Your task to perform on an android device: turn off location history Image 0: 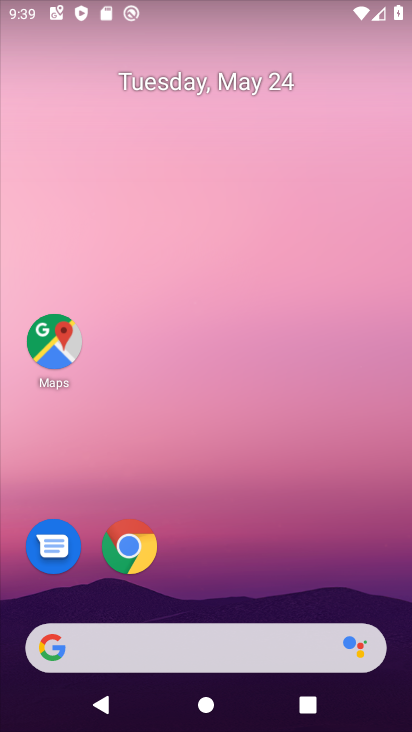
Step 0: drag from (191, 624) to (274, 183)
Your task to perform on an android device: turn off location history Image 1: 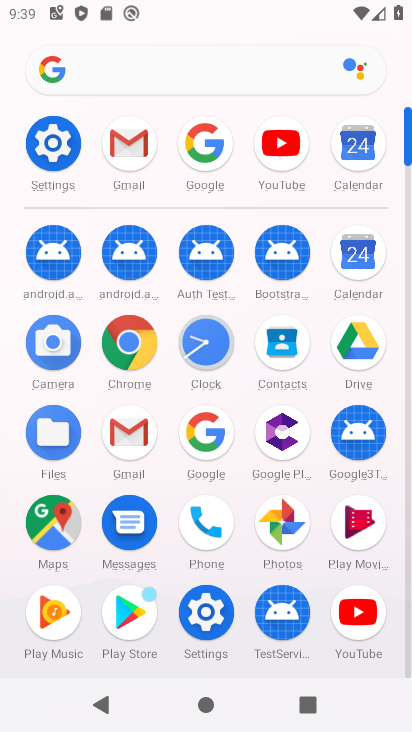
Step 1: click (64, 145)
Your task to perform on an android device: turn off location history Image 2: 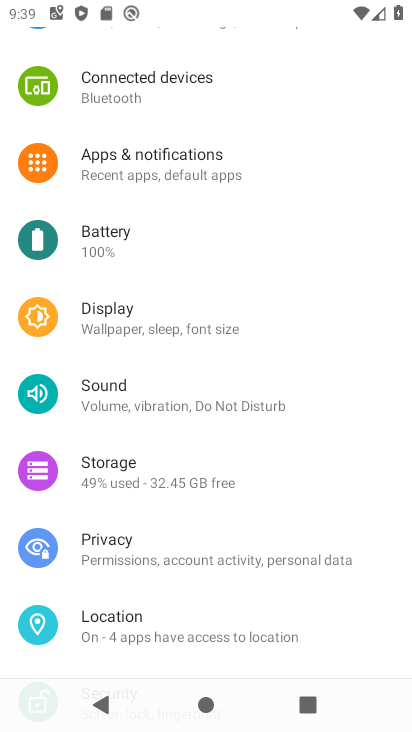
Step 2: click (159, 626)
Your task to perform on an android device: turn off location history Image 3: 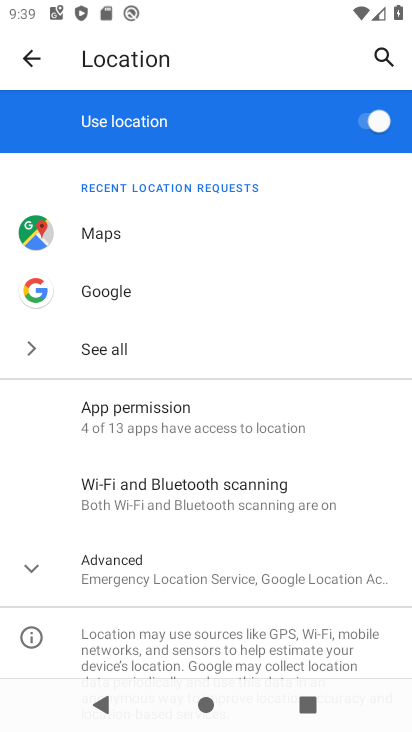
Step 3: click (103, 561)
Your task to perform on an android device: turn off location history Image 4: 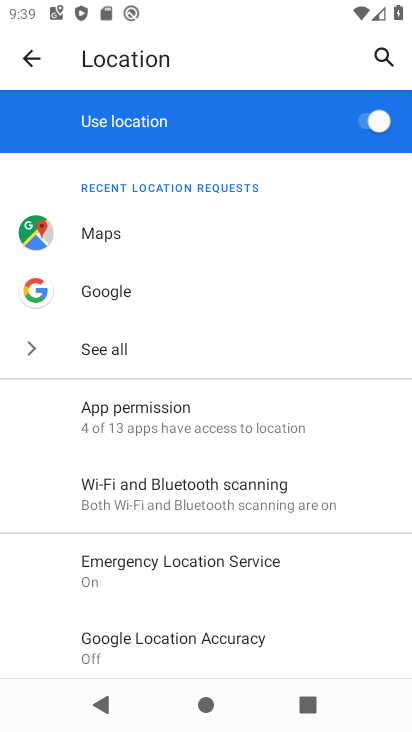
Step 4: drag from (167, 644) to (214, 350)
Your task to perform on an android device: turn off location history Image 5: 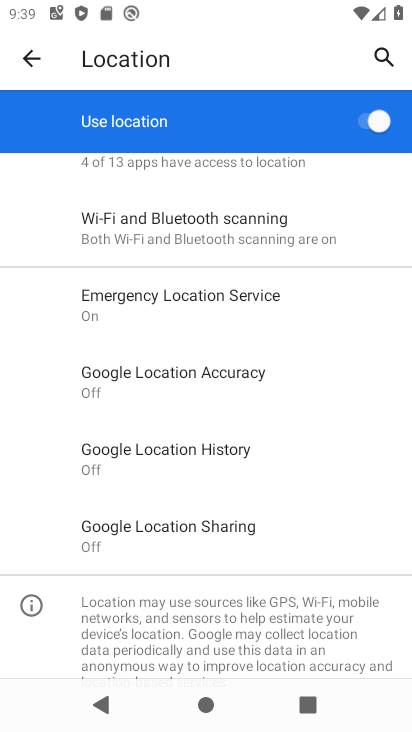
Step 5: click (170, 467)
Your task to perform on an android device: turn off location history Image 6: 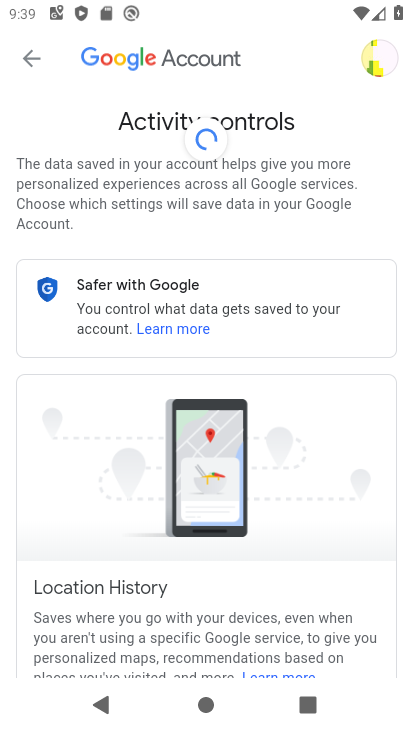
Step 6: drag from (338, 664) to (373, 246)
Your task to perform on an android device: turn off location history Image 7: 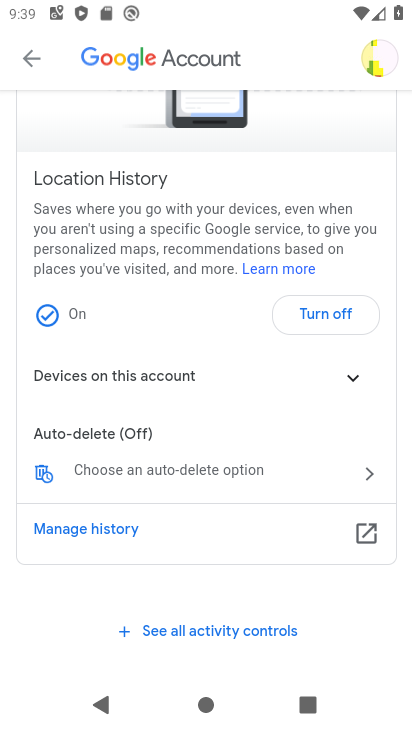
Step 7: click (318, 313)
Your task to perform on an android device: turn off location history Image 8: 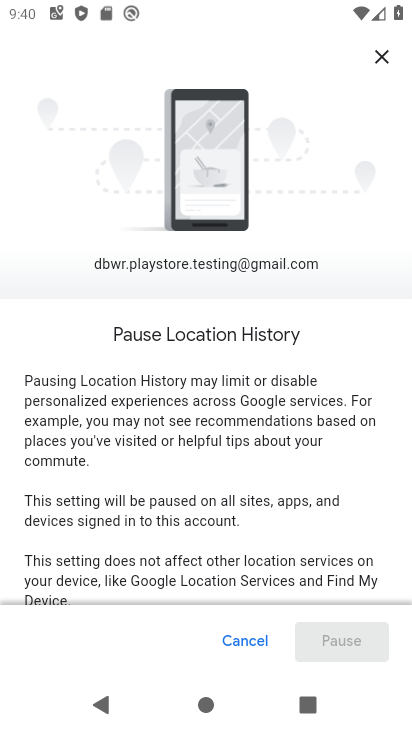
Step 8: drag from (295, 548) to (316, 253)
Your task to perform on an android device: turn off location history Image 9: 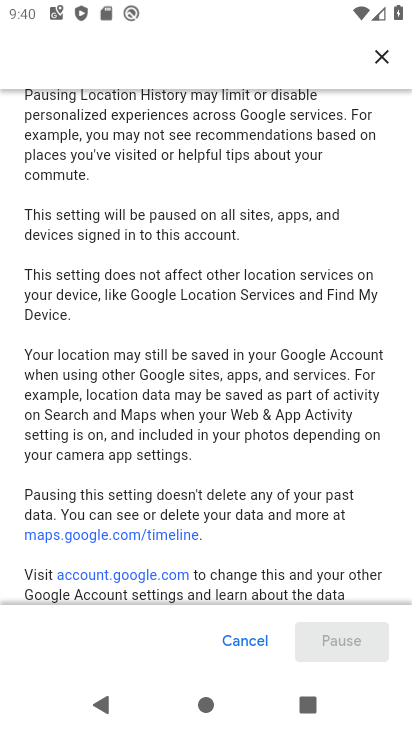
Step 9: click (335, 282)
Your task to perform on an android device: turn off location history Image 10: 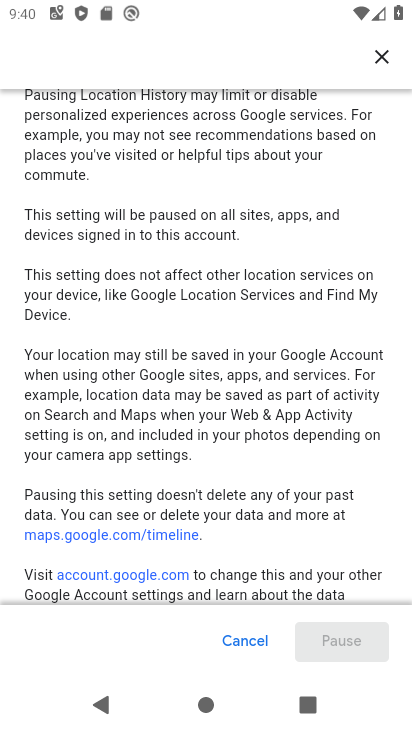
Step 10: drag from (303, 260) to (303, 202)
Your task to perform on an android device: turn off location history Image 11: 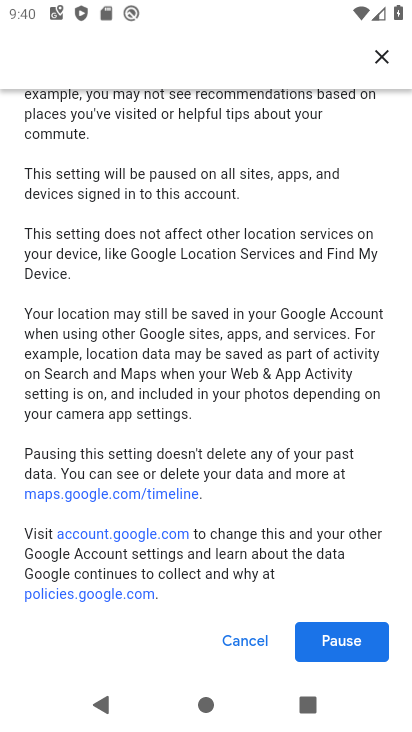
Step 11: drag from (285, 589) to (313, 189)
Your task to perform on an android device: turn off location history Image 12: 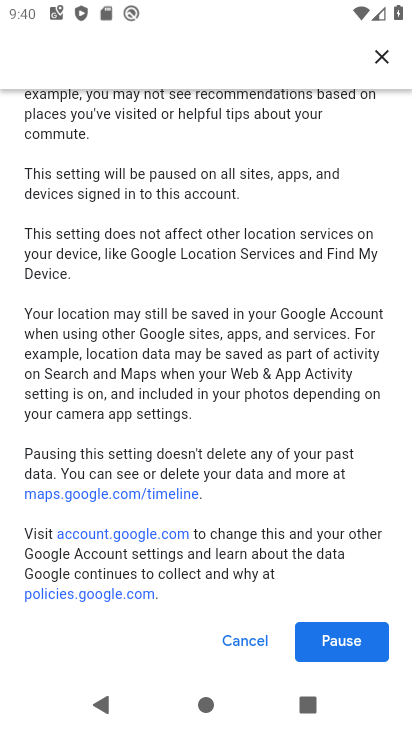
Step 12: click (346, 639)
Your task to perform on an android device: turn off location history Image 13: 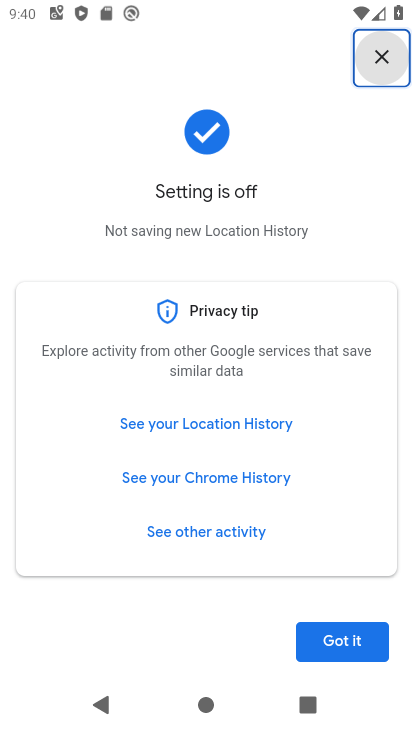
Step 13: click (344, 643)
Your task to perform on an android device: turn off location history Image 14: 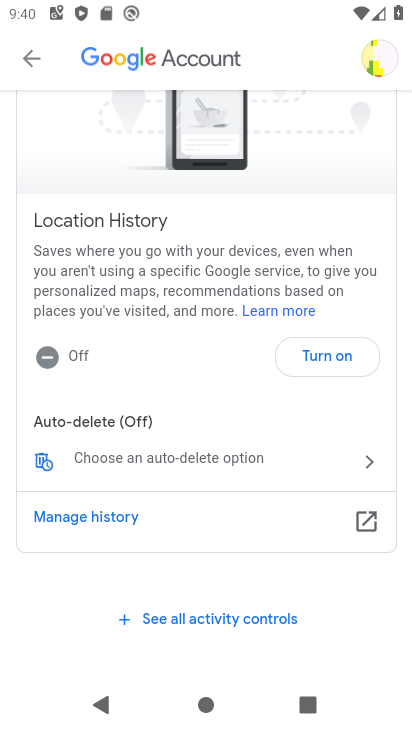
Step 14: click (345, 650)
Your task to perform on an android device: turn off location history Image 15: 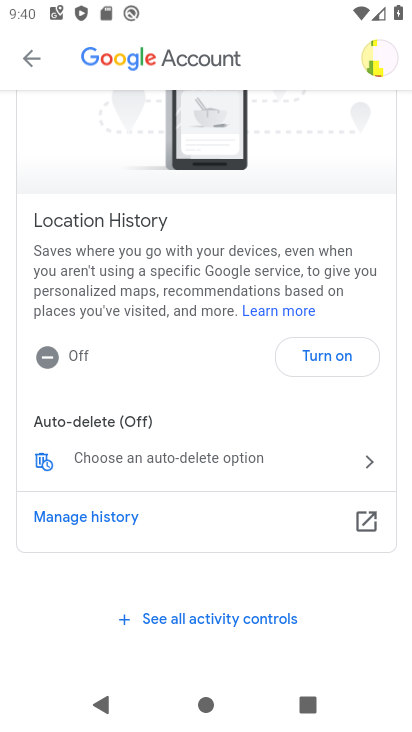
Step 15: task complete